Your task to perform on an android device: change timer sound Image 0: 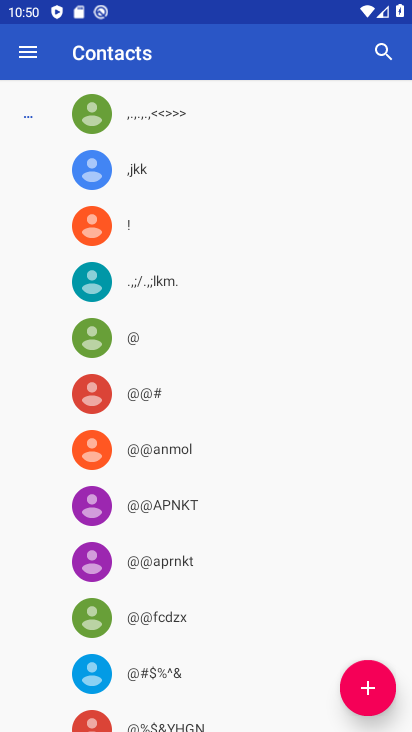
Step 0: press home button
Your task to perform on an android device: change timer sound Image 1: 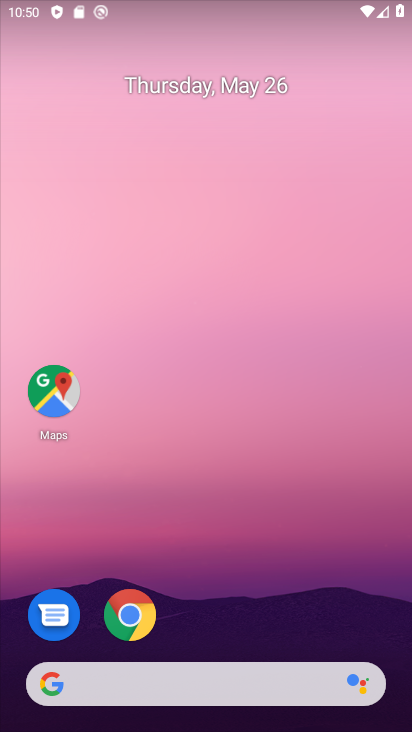
Step 1: drag from (321, 540) to (368, 22)
Your task to perform on an android device: change timer sound Image 2: 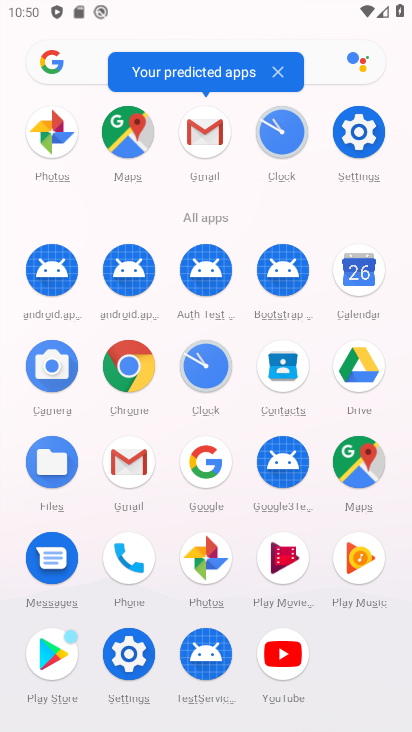
Step 2: click (180, 355)
Your task to perform on an android device: change timer sound Image 3: 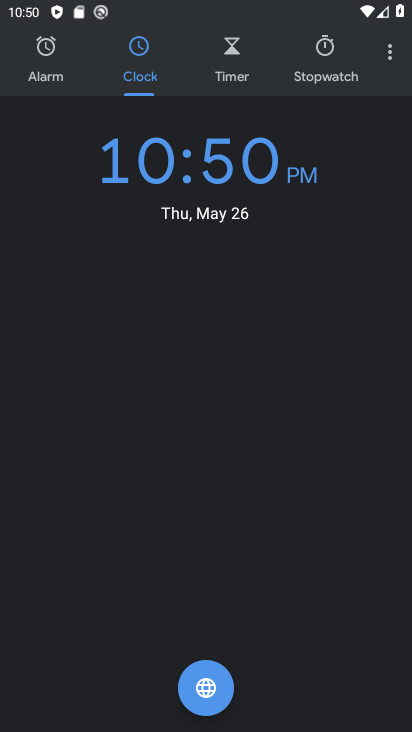
Step 3: click (209, 61)
Your task to perform on an android device: change timer sound Image 4: 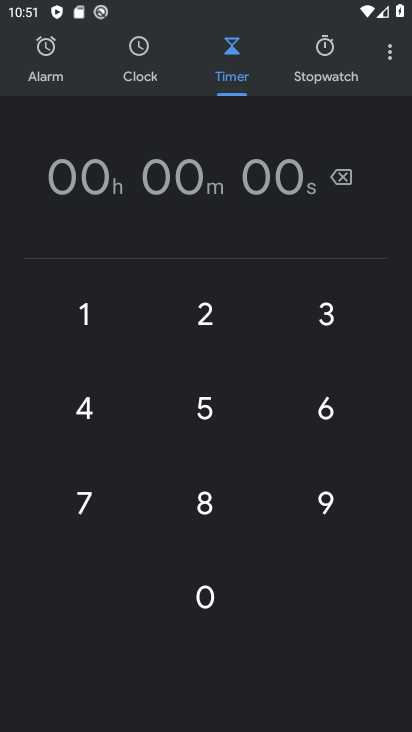
Step 4: click (384, 44)
Your task to perform on an android device: change timer sound Image 5: 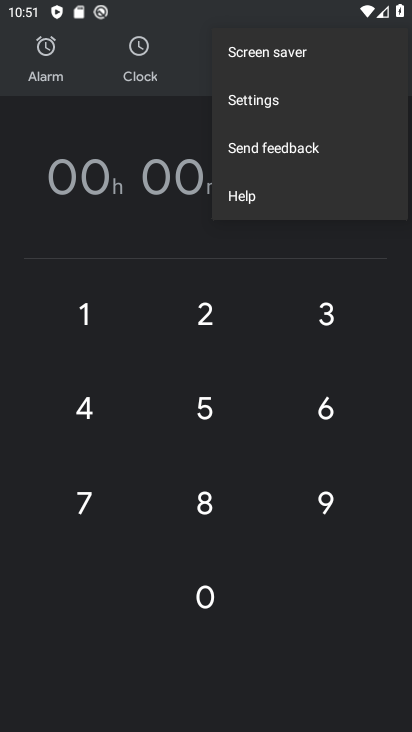
Step 5: click (262, 110)
Your task to perform on an android device: change timer sound Image 6: 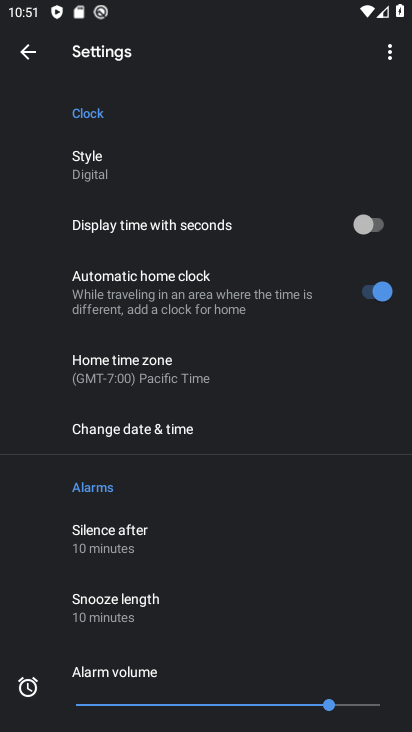
Step 6: drag from (367, 589) to (360, 105)
Your task to perform on an android device: change timer sound Image 7: 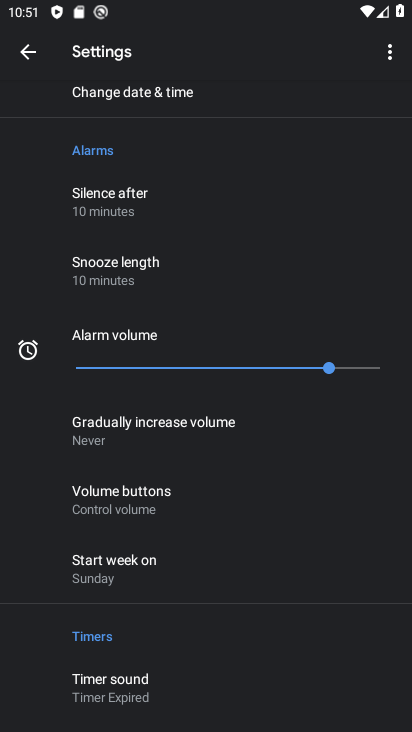
Step 7: drag from (143, 592) to (145, 60)
Your task to perform on an android device: change timer sound Image 8: 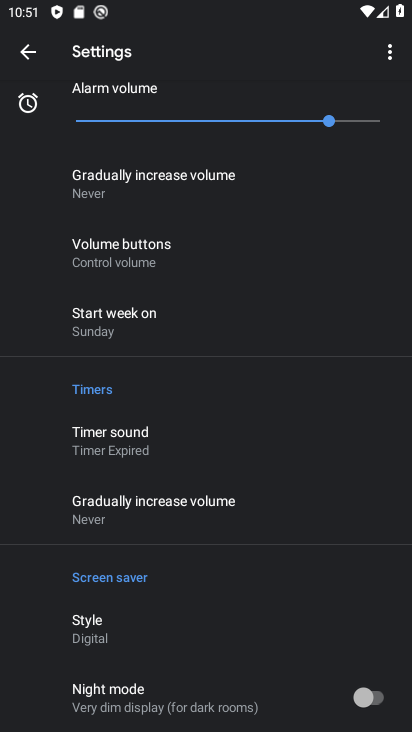
Step 8: click (161, 420)
Your task to perform on an android device: change timer sound Image 9: 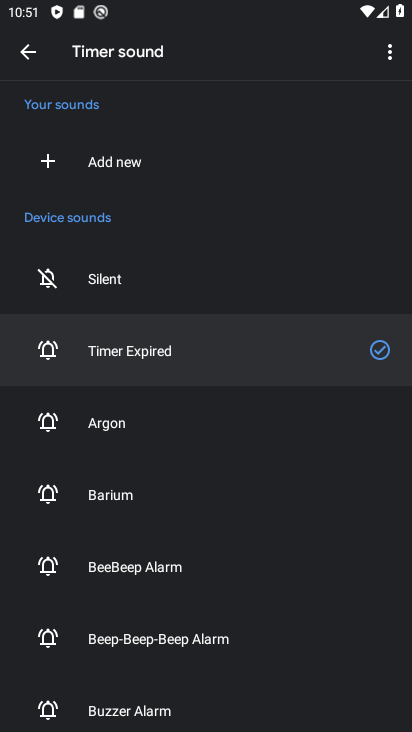
Step 9: click (99, 626)
Your task to perform on an android device: change timer sound Image 10: 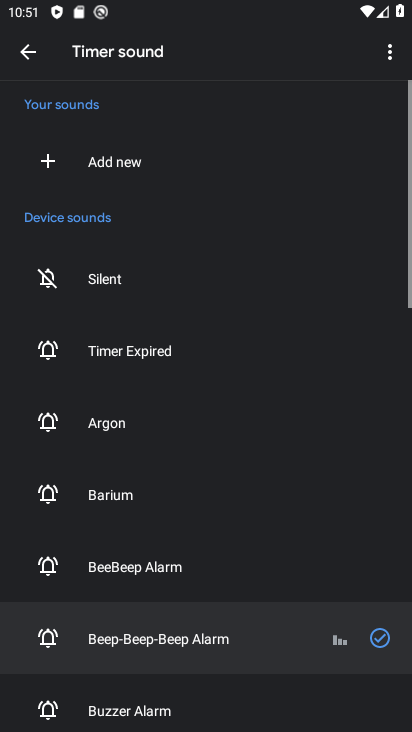
Step 10: task complete